Your task to perform on an android device: turn off picture-in-picture Image 0: 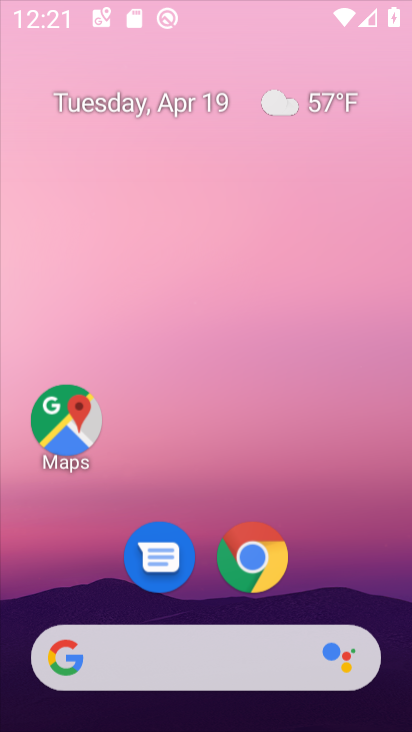
Step 0: press home button
Your task to perform on an android device: turn off picture-in-picture Image 1: 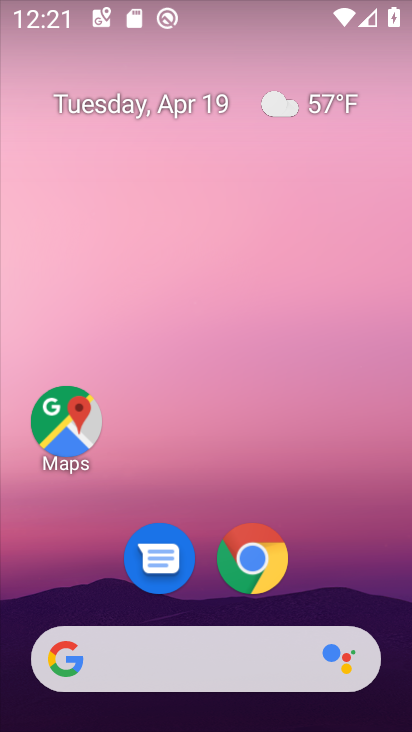
Step 1: drag from (312, 531) to (226, 217)
Your task to perform on an android device: turn off picture-in-picture Image 2: 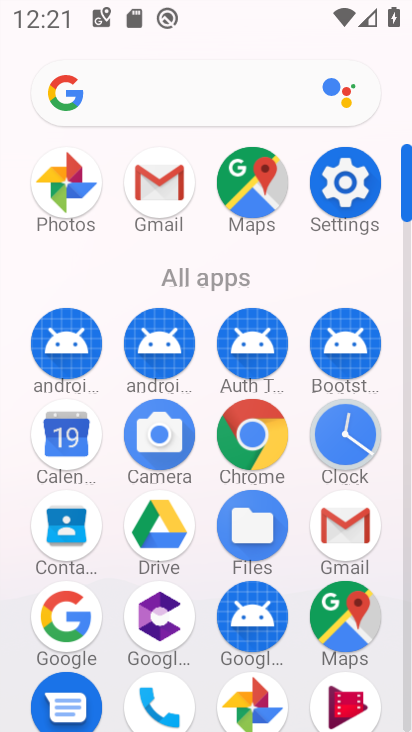
Step 2: click (358, 193)
Your task to perform on an android device: turn off picture-in-picture Image 3: 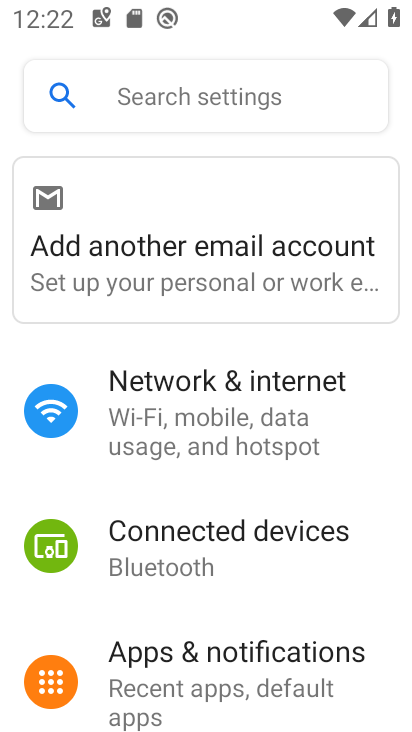
Step 3: click (205, 685)
Your task to perform on an android device: turn off picture-in-picture Image 4: 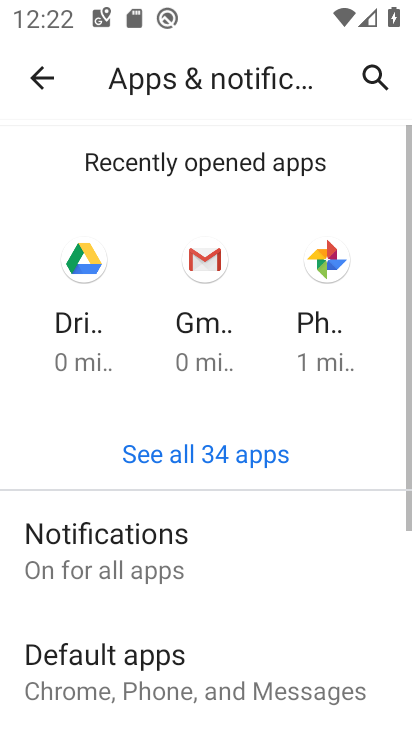
Step 4: drag from (205, 678) to (216, 182)
Your task to perform on an android device: turn off picture-in-picture Image 5: 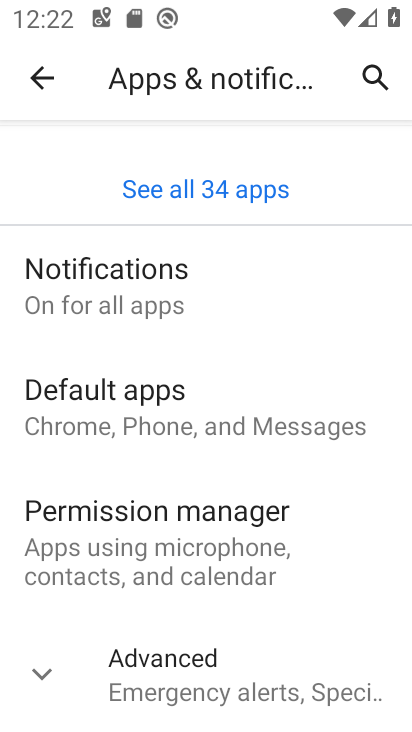
Step 5: click (214, 691)
Your task to perform on an android device: turn off picture-in-picture Image 6: 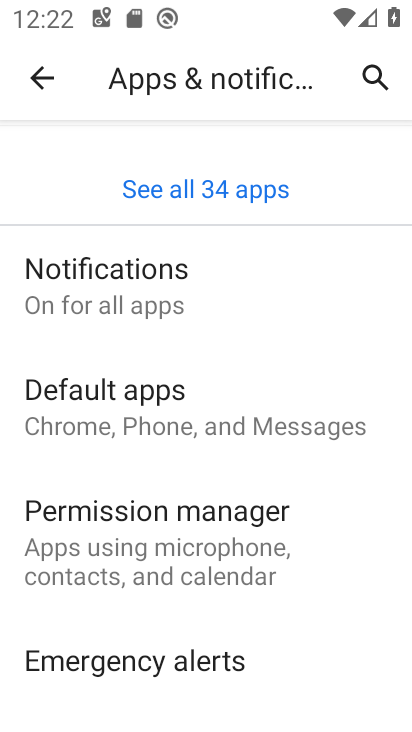
Step 6: drag from (200, 661) to (211, 183)
Your task to perform on an android device: turn off picture-in-picture Image 7: 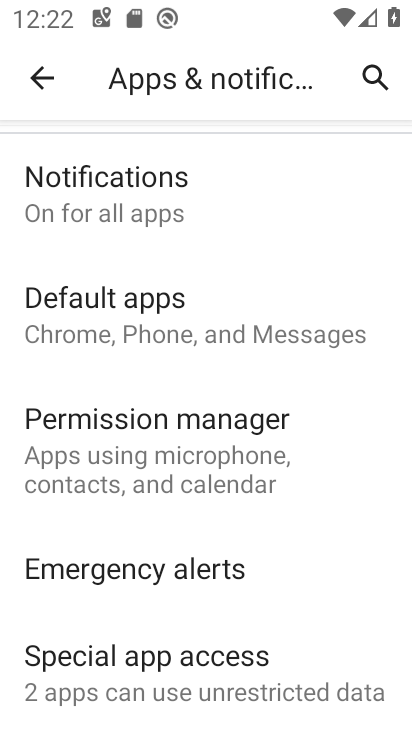
Step 7: click (241, 681)
Your task to perform on an android device: turn off picture-in-picture Image 8: 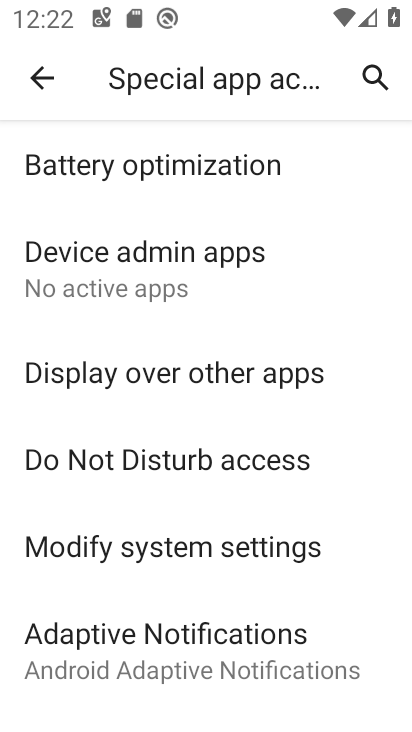
Step 8: drag from (199, 655) to (198, 207)
Your task to perform on an android device: turn off picture-in-picture Image 9: 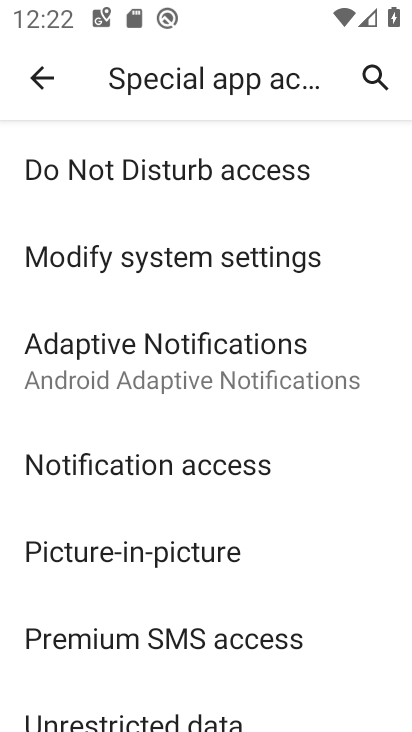
Step 9: click (131, 554)
Your task to perform on an android device: turn off picture-in-picture Image 10: 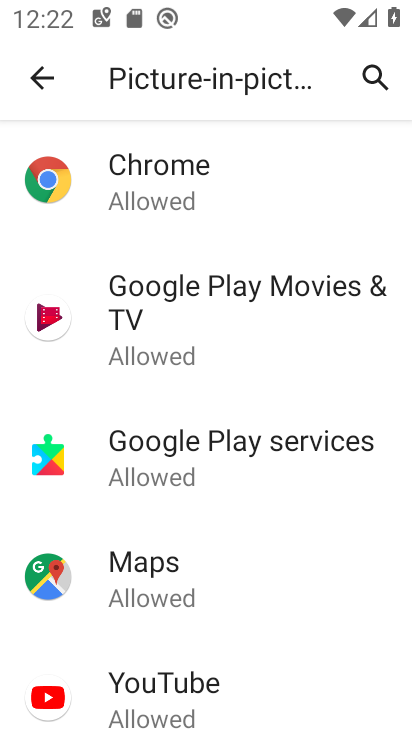
Step 10: click (175, 193)
Your task to perform on an android device: turn off picture-in-picture Image 11: 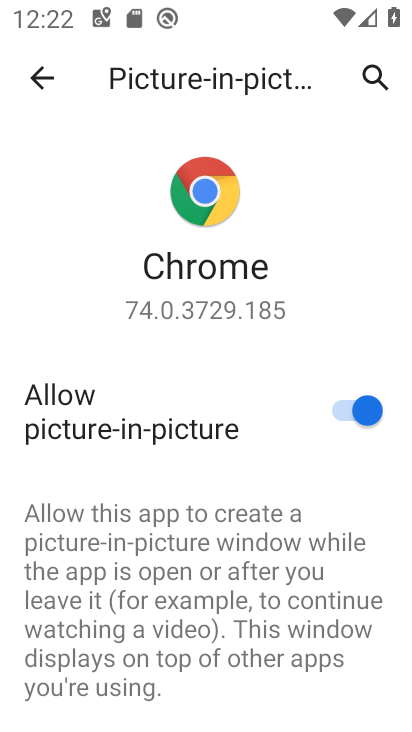
Step 11: click (362, 406)
Your task to perform on an android device: turn off picture-in-picture Image 12: 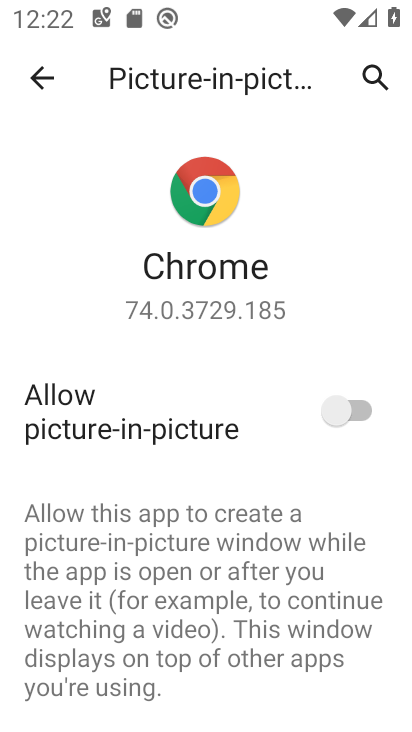
Step 12: click (40, 75)
Your task to perform on an android device: turn off picture-in-picture Image 13: 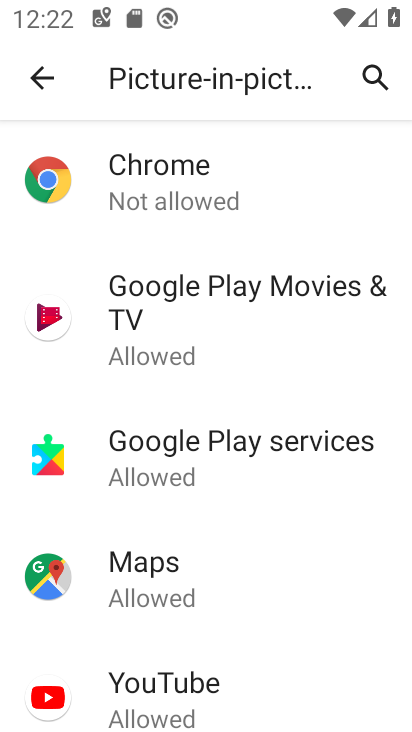
Step 13: click (184, 318)
Your task to perform on an android device: turn off picture-in-picture Image 14: 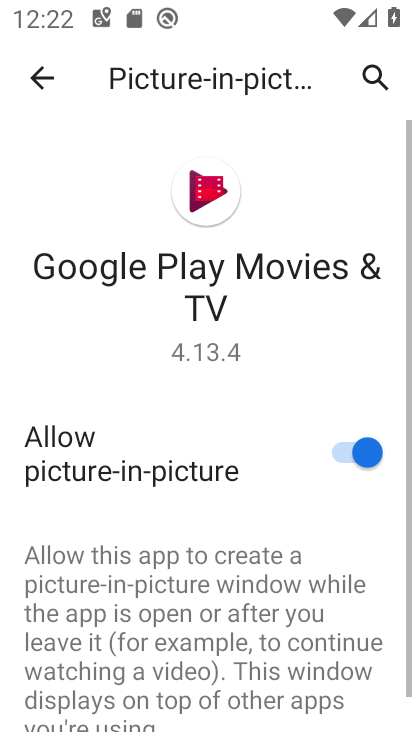
Step 14: click (366, 456)
Your task to perform on an android device: turn off picture-in-picture Image 15: 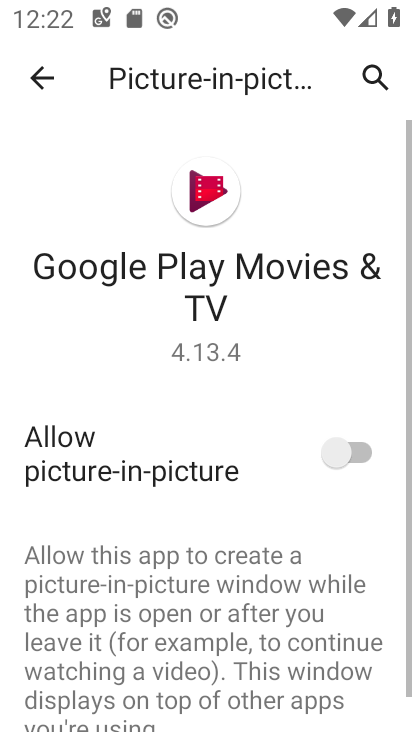
Step 15: press back button
Your task to perform on an android device: turn off picture-in-picture Image 16: 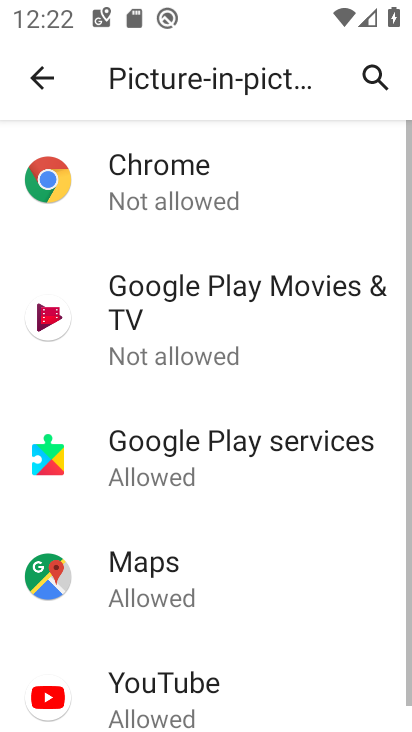
Step 16: click (230, 434)
Your task to perform on an android device: turn off picture-in-picture Image 17: 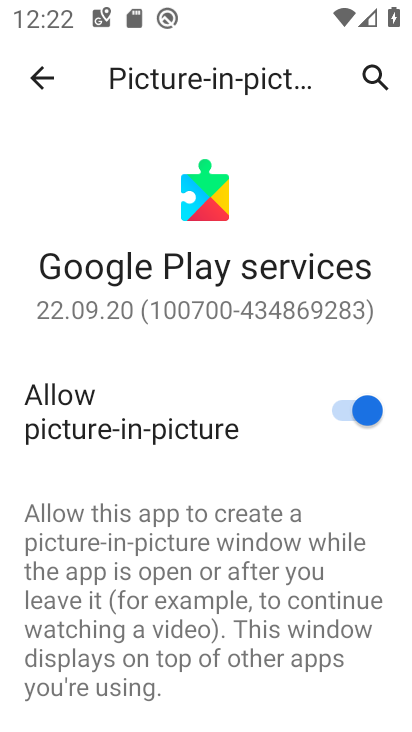
Step 17: click (359, 408)
Your task to perform on an android device: turn off picture-in-picture Image 18: 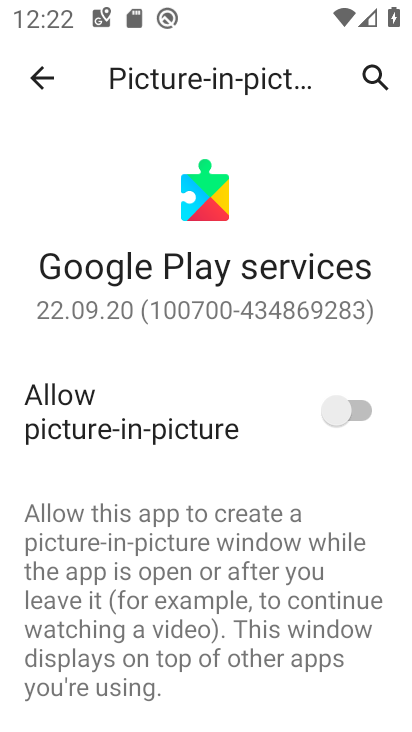
Step 18: press back button
Your task to perform on an android device: turn off picture-in-picture Image 19: 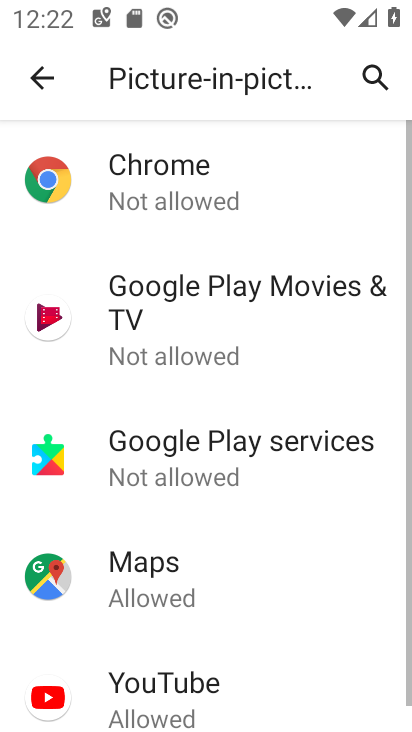
Step 19: click (197, 587)
Your task to perform on an android device: turn off picture-in-picture Image 20: 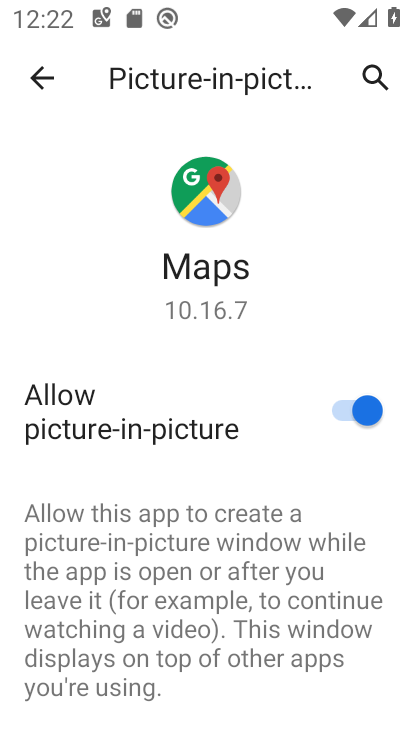
Step 20: click (368, 397)
Your task to perform on an android device: turn off picture-in-picture Image 21: 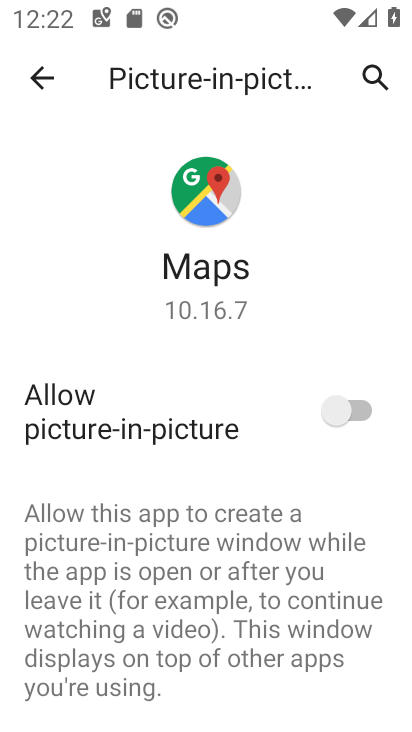
Step 21: press back button
Your task to perform on an android device: turn off picture-in-picture Image 22: 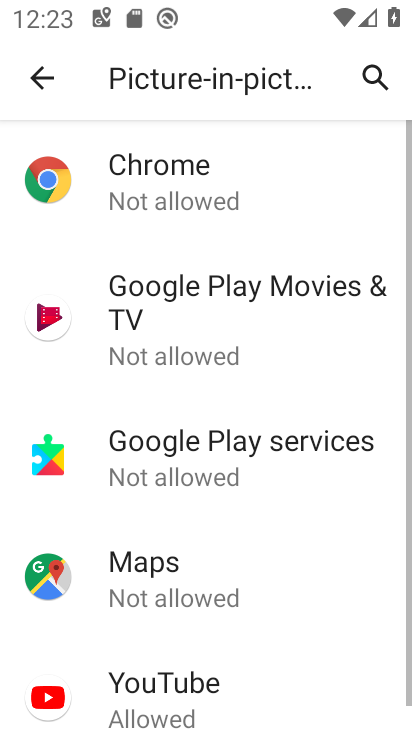
Step 22: drag from (175, 640) to (191, 262)
Your task to perform on an android device: turn off picture-in-picture Image 23: 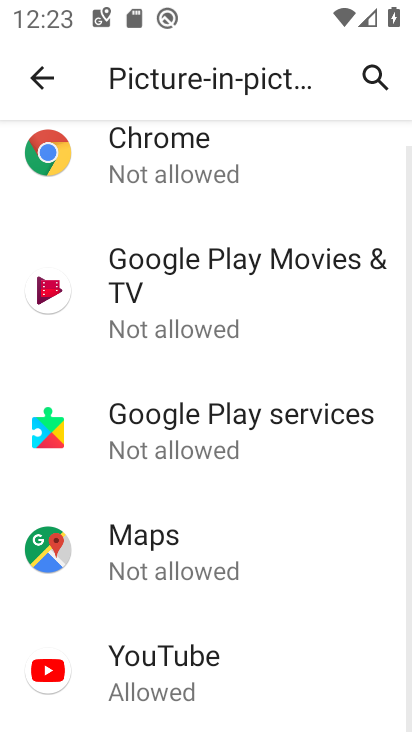
Step 23: click (177, 675)
Your task to perform on an android device: turn off picture-in-picture Image 24: 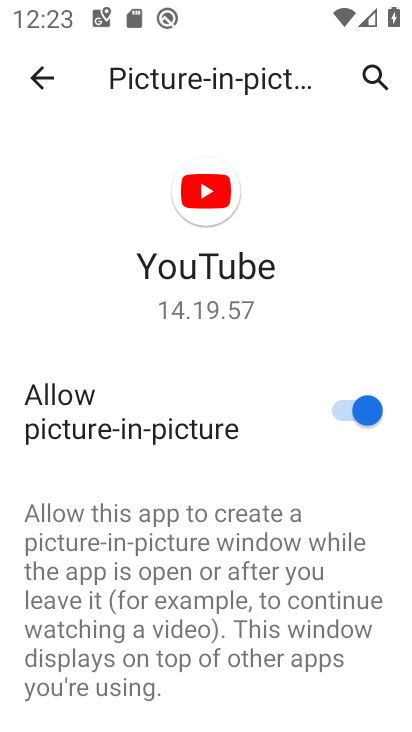
Step 24: click (359, 414)
Your task to perform on an android device: turn off picture-in-picture Image 25: 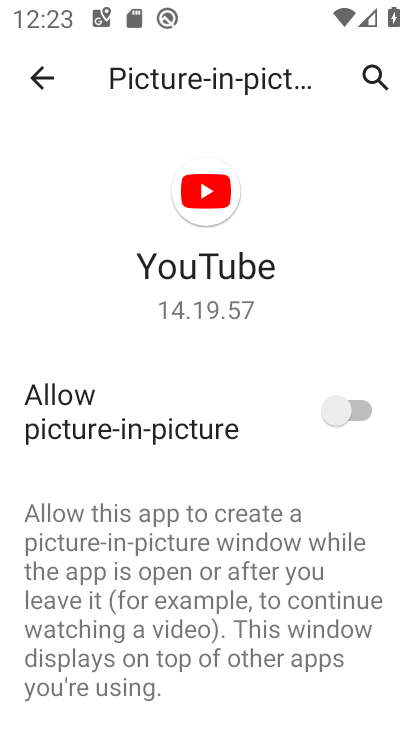
Step 25: task complete